Your task to perform on an android device: turn on notifications settings in the gmail app Image 0: 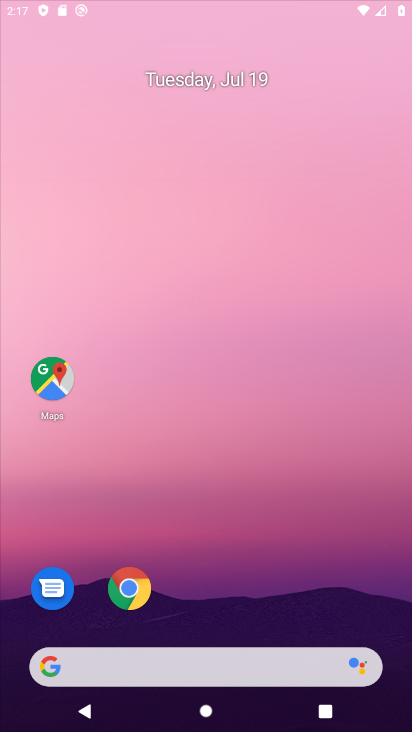
Step 0: press home button
Your task to perform on an android device: turn on notifications settings in the gmail app Image 1: 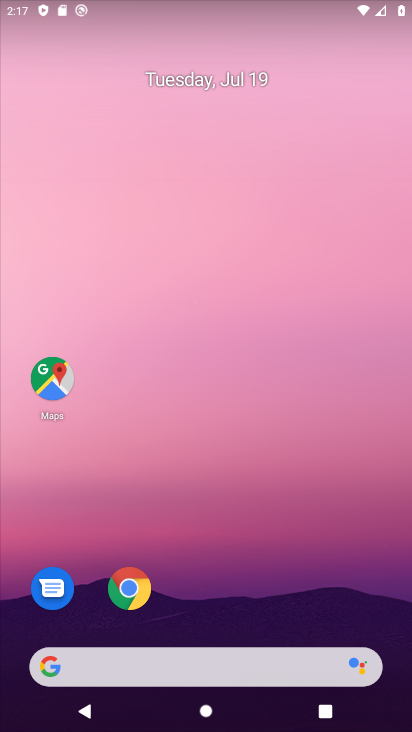
Step 1: drag from (255, 610) to (304, 3)
Your task to perform on an android device: turn on notifications settings in the gmail app Image 2: 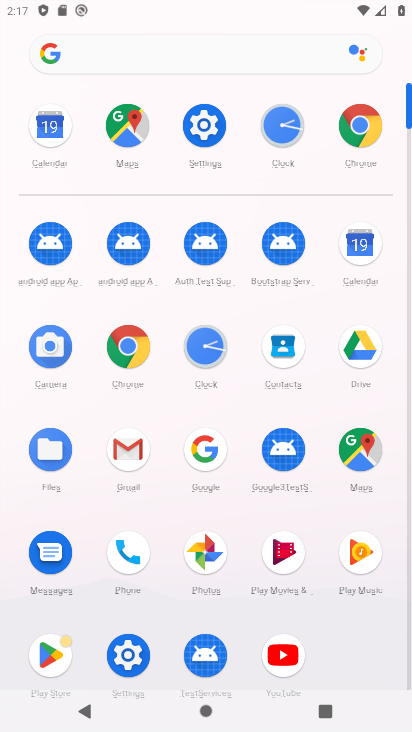
Step 2: click (125, 446)
Your task to perform on an android device: turn on notifications settings in the gmail app Image 3: 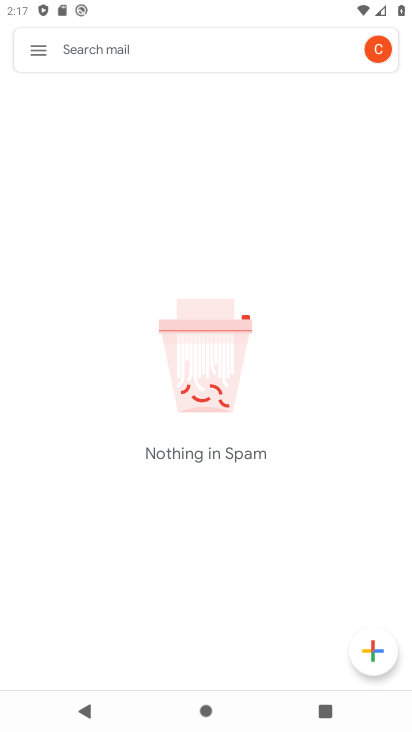
Step 3: click (31, 48)
Your task to perform on an android device: turn on notifications settings in the gmail app Image 4: 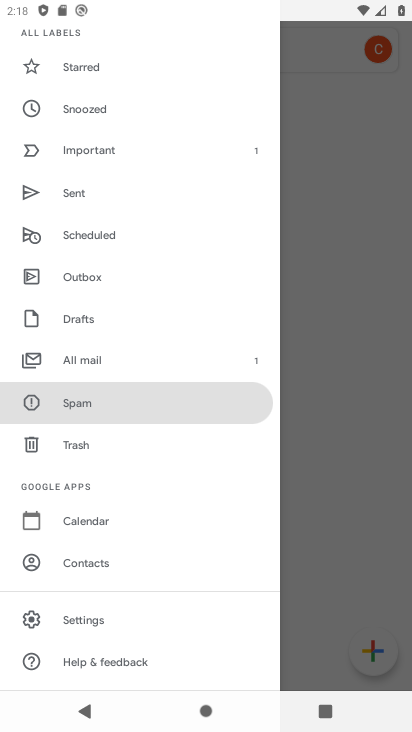
Step 4: click (80, 616)
Your task to perform on an android device: turn on notifications settings in the gmail app Image 5: 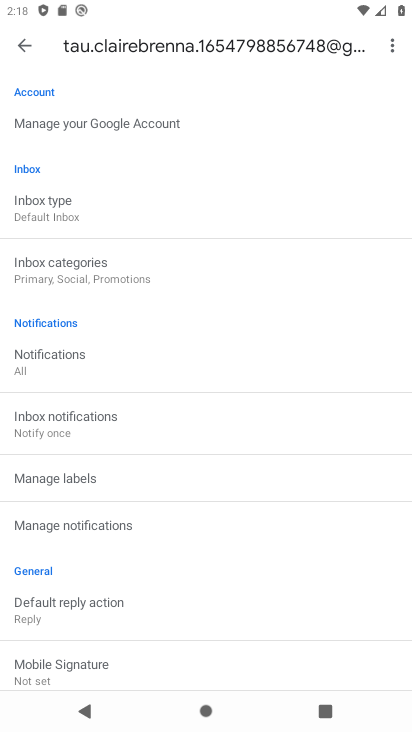
Step 5: click (64, 528)
Your task to perform on an android device: turn on notifications settings in the gmail app Image 6: 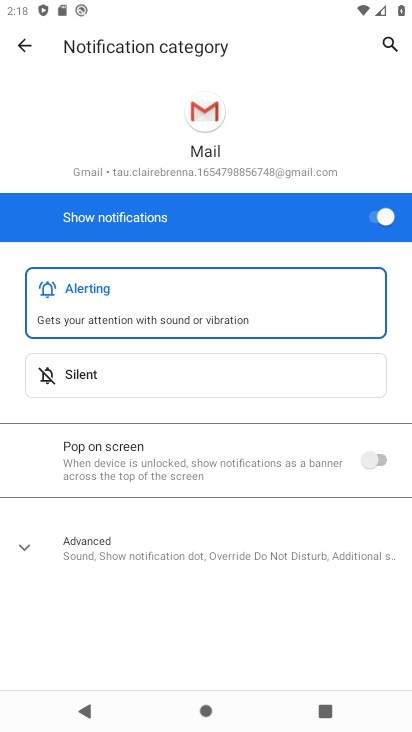
Step 6: task complete